Your task to perform on an android device: Go to battery settings Image 0: 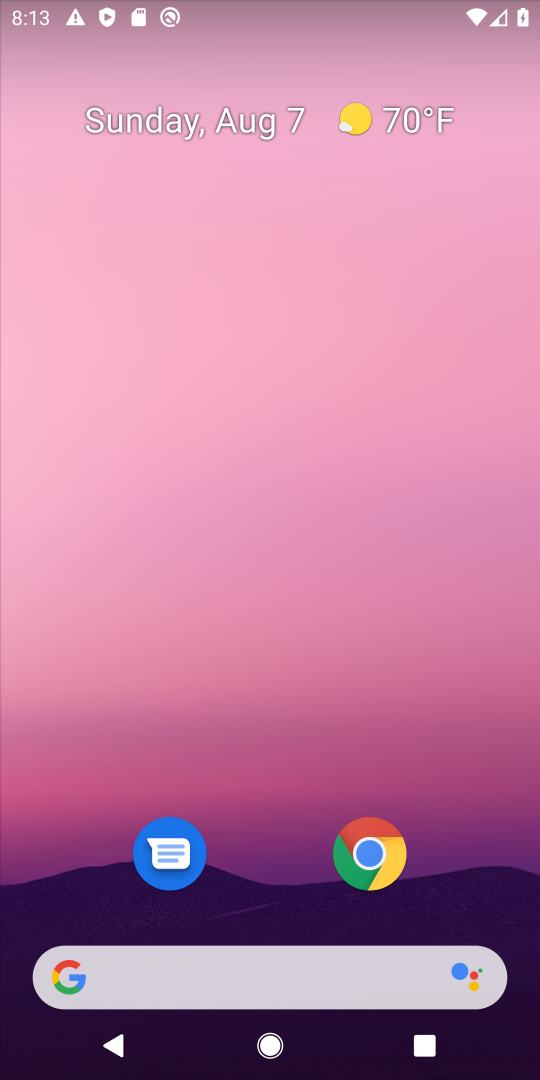
Step 0: drag from (286, 986) to (281, 30)
Your task to perform on an android device: Go to battery settings Image 1: 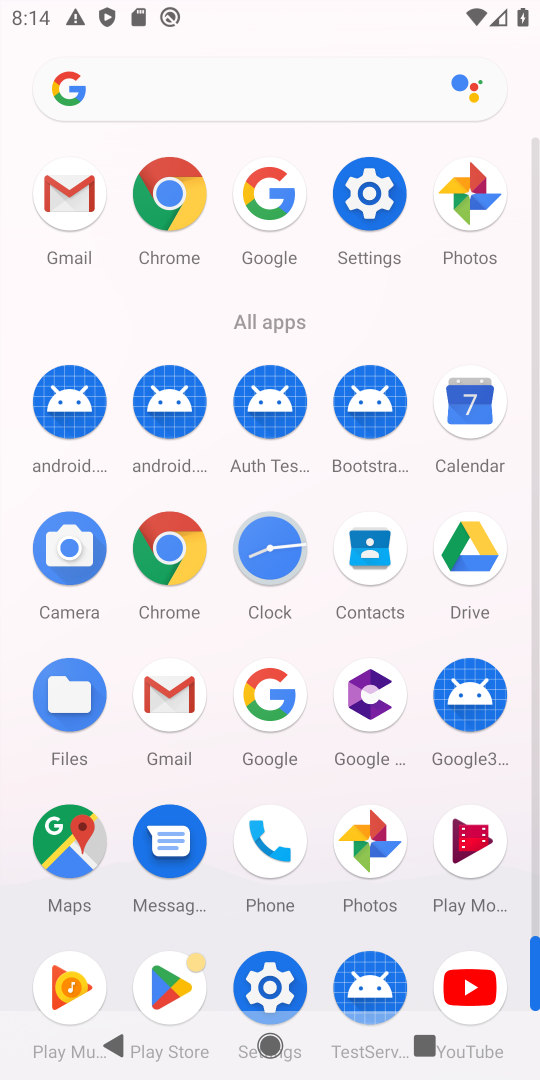
Step 1: click (362, 211)
Your task to perform on an android device: Go to battery settings Image 2: 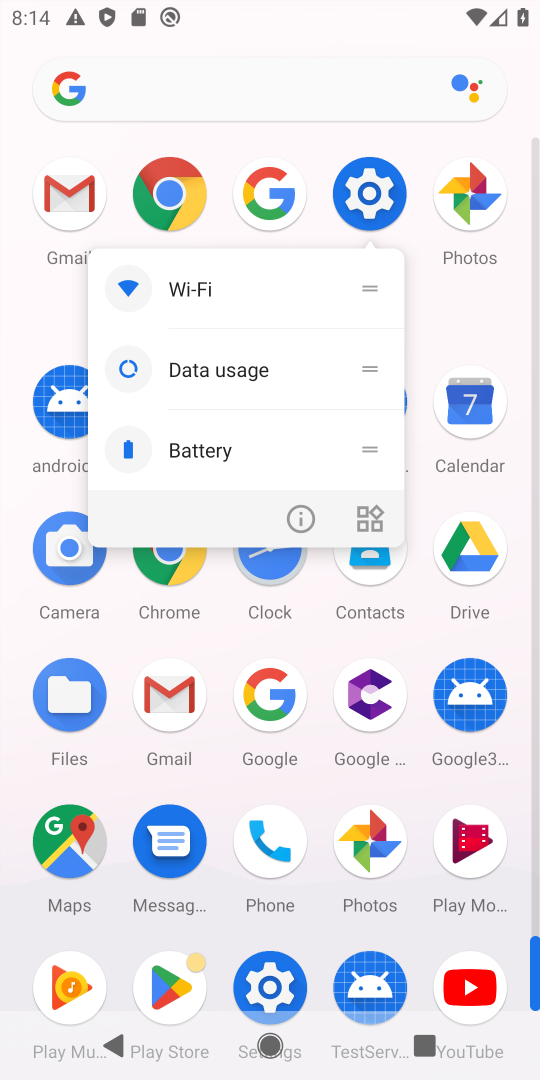
Step 2: click (380, 192)
Your task to perform on an android device: Go to battery settings Image 3: 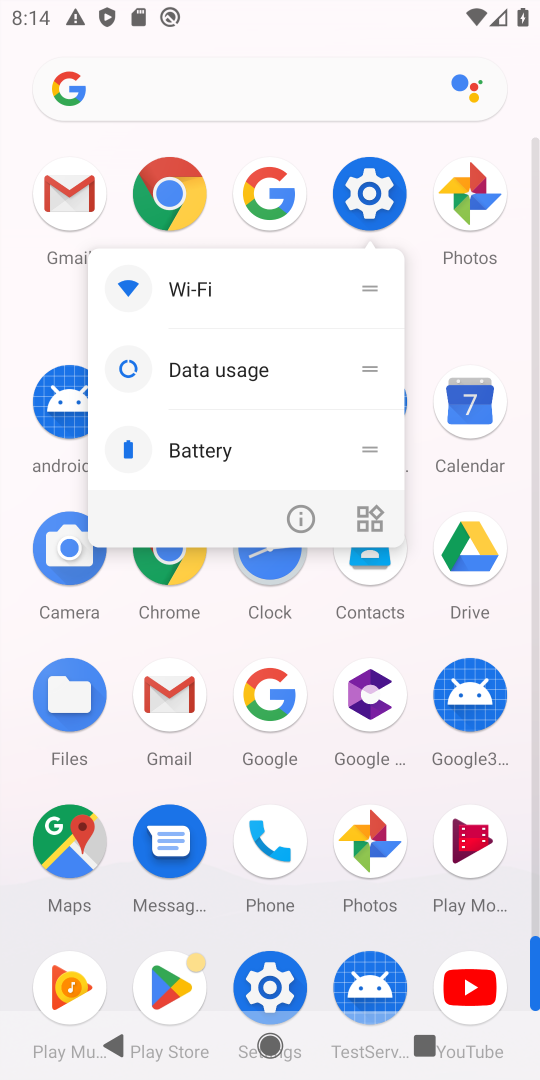
Step 3: click (378, 191)
Your task to perform on an android device: Go to battery settings Image 4: 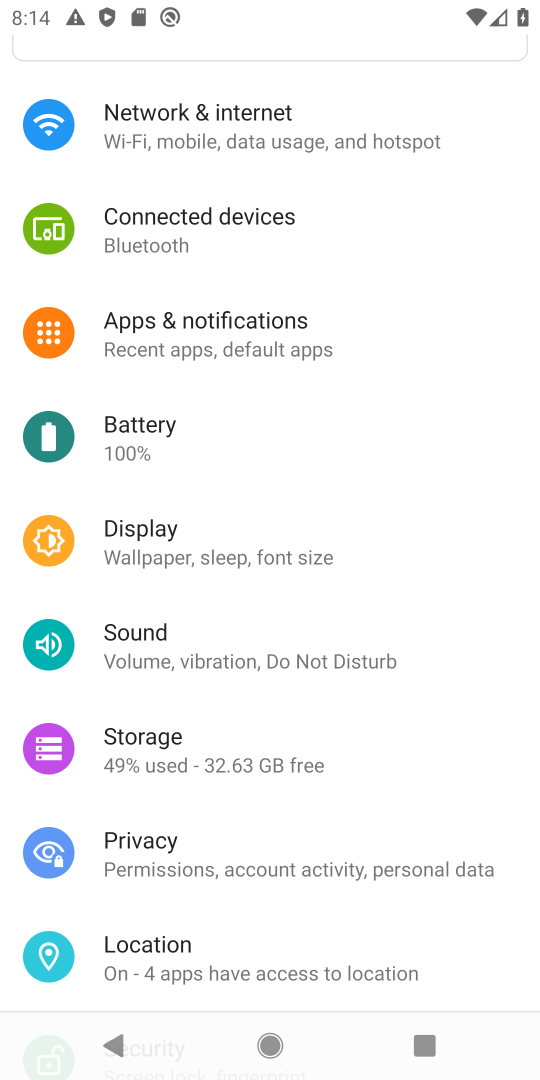
Step 4: click (150, 445)
Your task to perform on an android device: Go to battery settings Image 5: 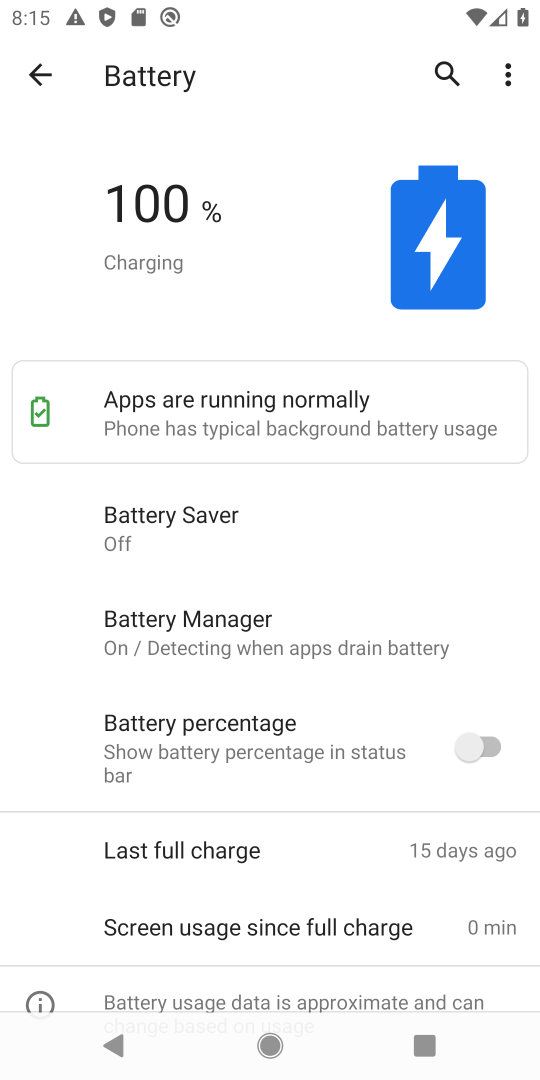
Step 5: task complete